Your task to perform on an android device: empty trash in the gmail app Image 0: 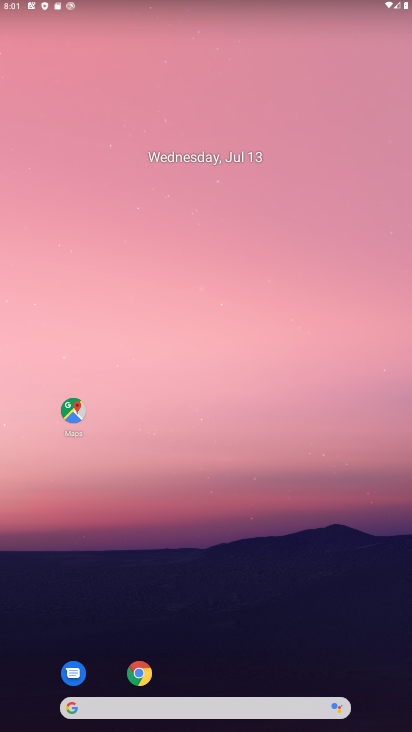
Step 0: drag from (347, 652) to (241, 138)
Your task to perform on an android device: empty trash in the gmail app Image 1: 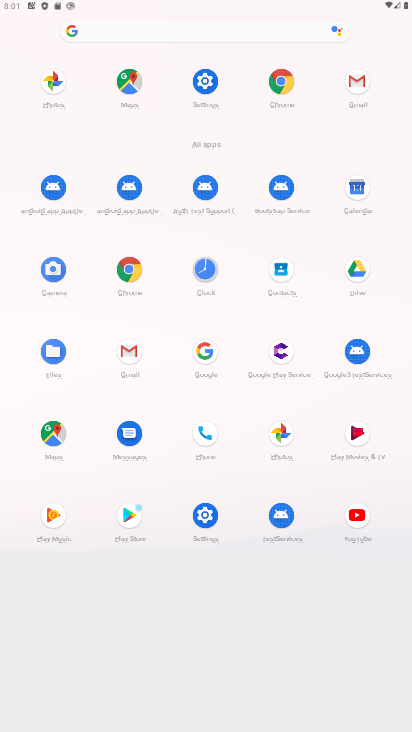
Step 1: click (363, 80)
Your task to perform on an android device: empty trash in the gmail app Image 2: 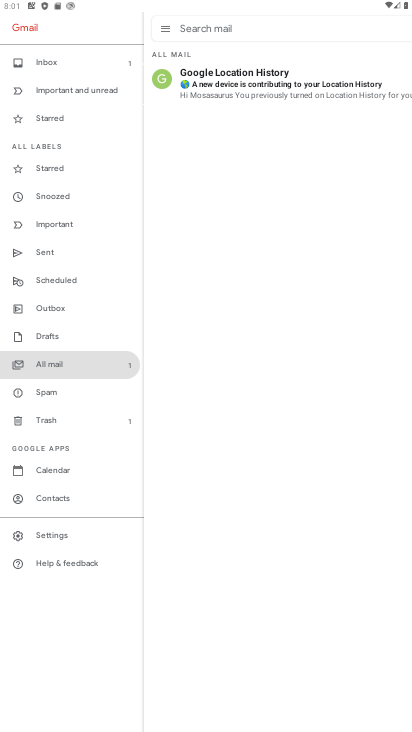
Step 2: click (52, 427)
Your task to perform on an android device: empty trash in the gmail app Image 3: 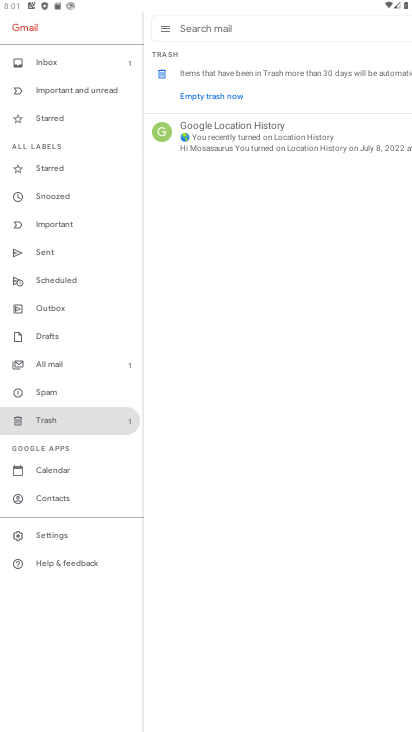
Step 3: click (202, 94)
Your task to perform on an android device: empty trash in the gmail app Image 4: 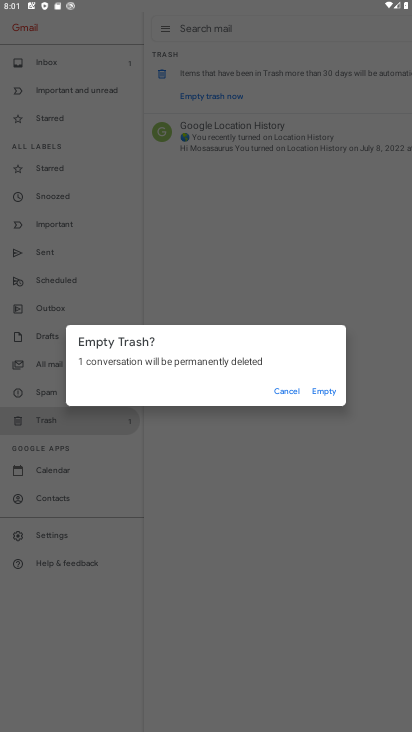
Step 4: click (325, 399)
Your task to perform on an android device: empty trash in the gmail app Image 5: 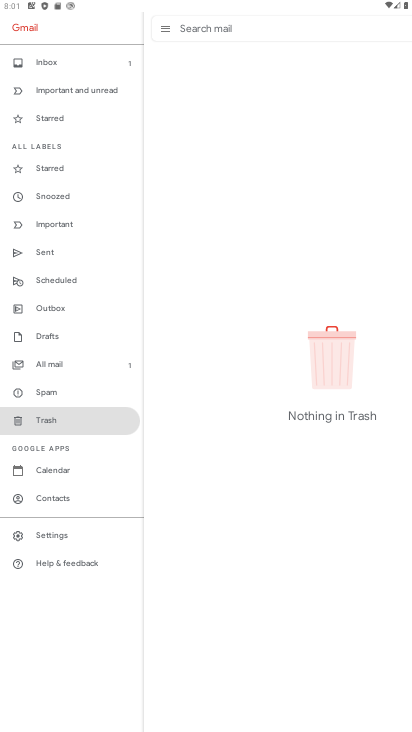
Step 5: task complete